Your task to perform on an android device: turn on showing notifications on the lock screen Image 0: 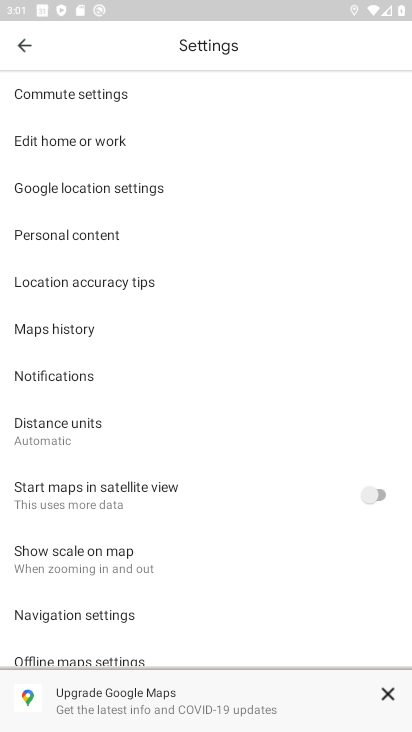
Step 0: press home button
Your task to perform on an android device: turn on showing notifications on the lock screen Image 1: 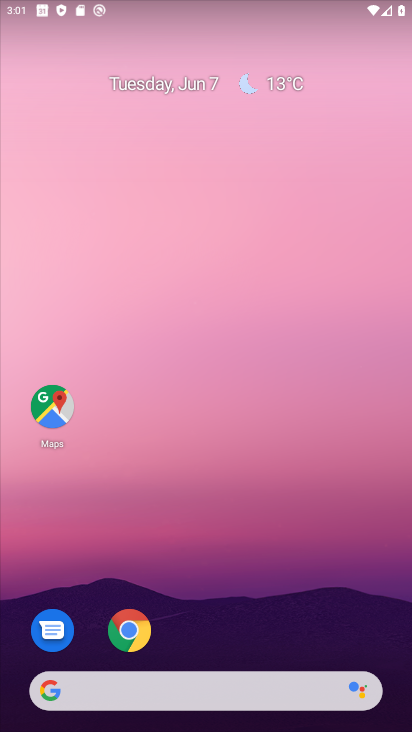
Step 1: drag from (202, 682) to (228, 169)
Your task to perform on an android device: turn on showing notifications on the lock screen Image 2: 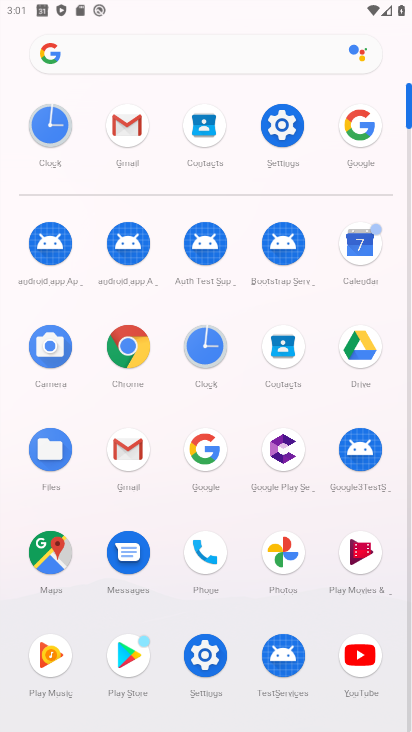
Step 2: click (274, 141)
Your task to perform on an android device: turn on showing notifications on the lock screen Image 3: 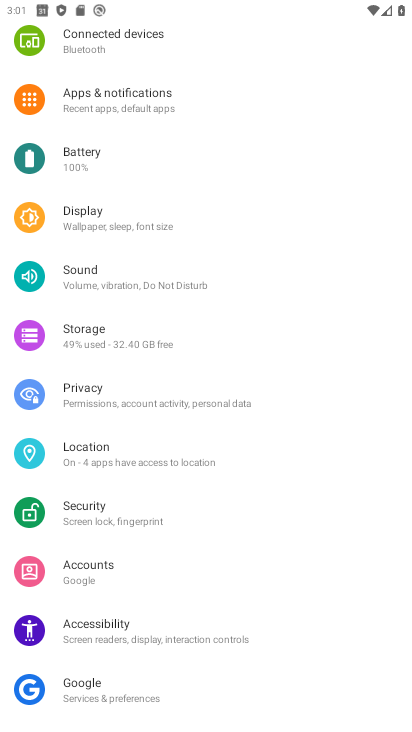
Step 3: drag from (178, 579) to (201, 130)
Your task to perform on an android device: turn on showing notifications on the lock screen Image 4: 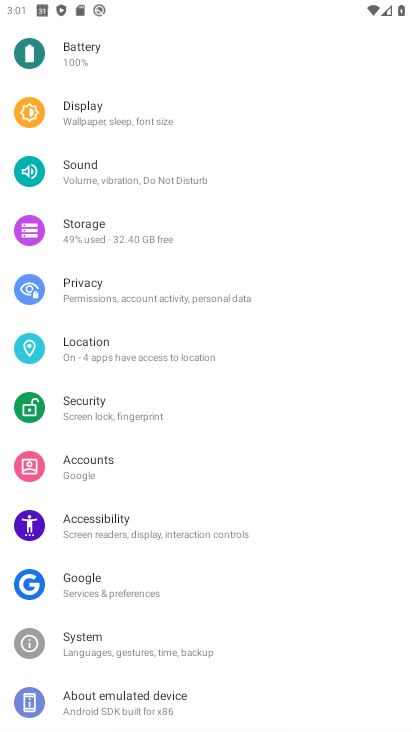
Step 4: drag from (191, 140) to (179, 510)
Your task to perform on an android device: turn on showing notifications on the lock screen Image 5: 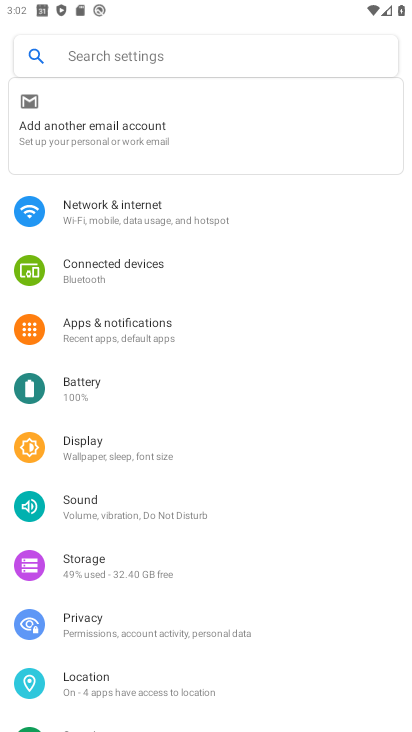
Step 5: click (157, 330)
Your task to perform on an android device: turn on showing notifications on the lock screen Image 6: 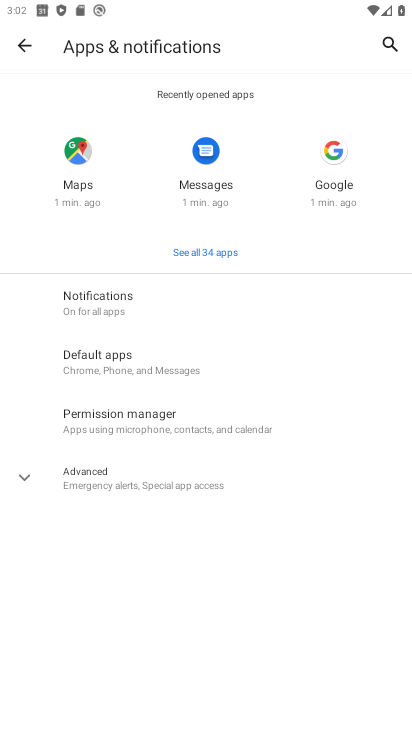
Step 6: click (148, 304)
Your task to perform on an android device: turn on showing notifications on the lock screen Image 7: 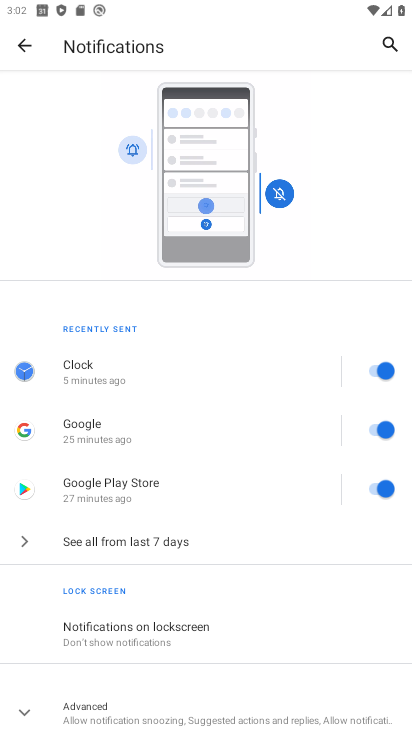
Step 7: drag from (223, 682) to (308, 210)
Your task to perform on an android device: turn on showing notifications on the lock screen Image 8: 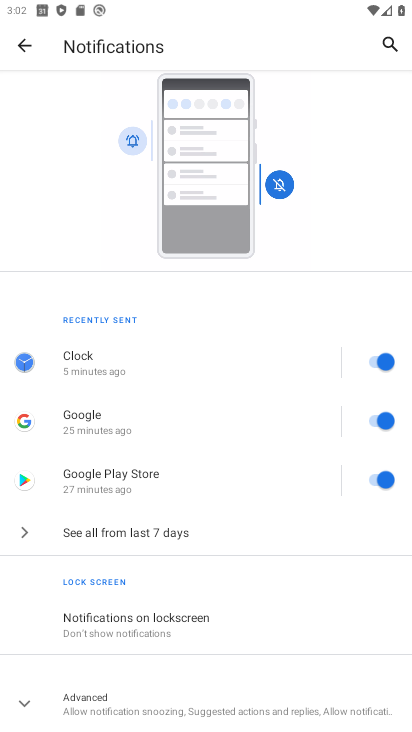
Step 8: click (211, 628)
Your task to perform on an android device: turn on showing notifications on the lock screen Image 9: 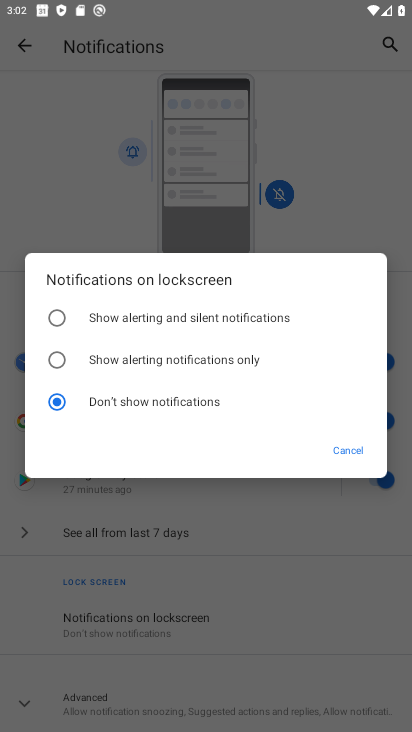
Step 9: click (181, 323)
Your task to perform on an android device: turn on showing notifications on the lock screen Image 10: 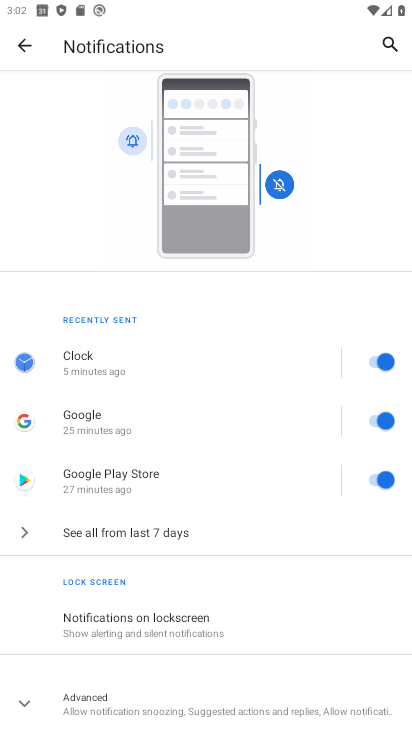
Step 10: task complete